Your task to perform on an android device: find which apps use the phone's location Image 0: 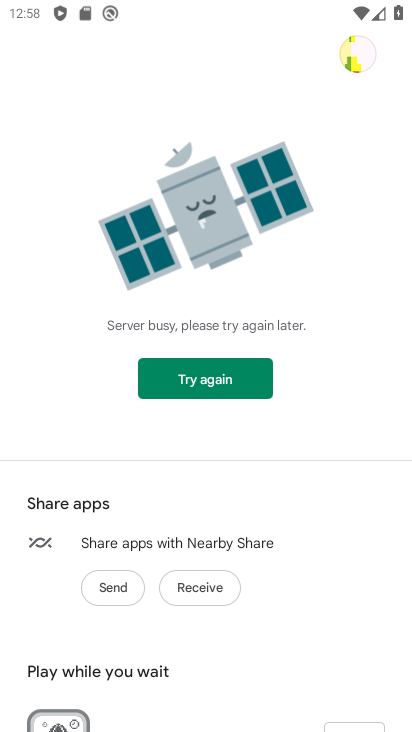
Step 0: press home button
Your task to perform on an android device: find which apps use the phone's location Image 1: 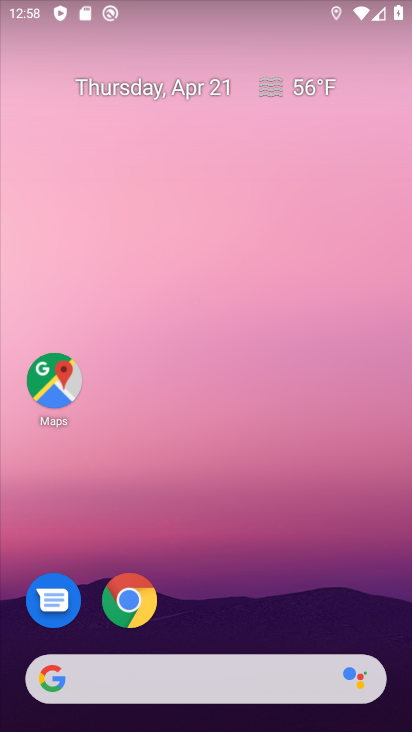
Step 1: drag from (353, 510) to (312, 134)
Your task to perform on an android device: find which apps use the phone's location Image 2: 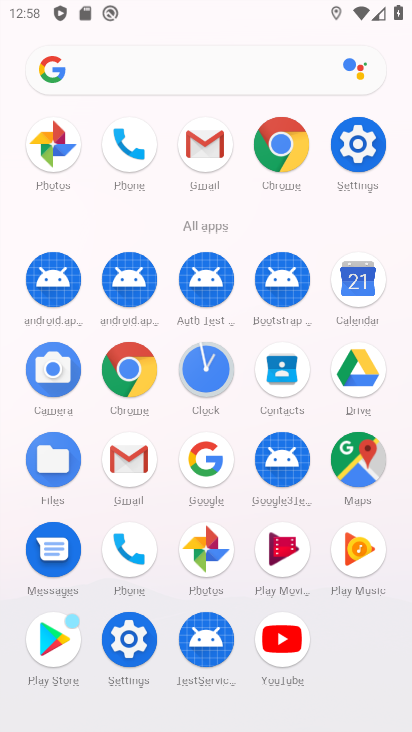
Step 2: click (359, 145)
Your task to perform on an android device: find which apps use the phone's location Image 3: 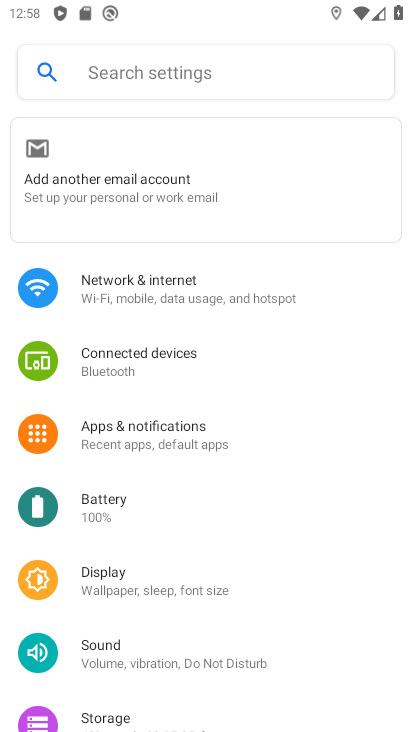
Step 3: drag from (332, 448) to (338, 363)
Your task to perform on an android device: find which apps use the phone's location Image 4: 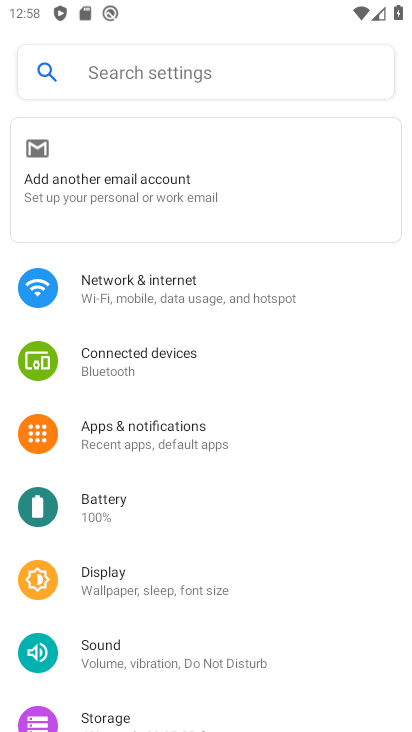
Step 4: drag from (333, 505) to (340, 337)
Your task to perform on an android device: find which apps use the phone's location Image 5: 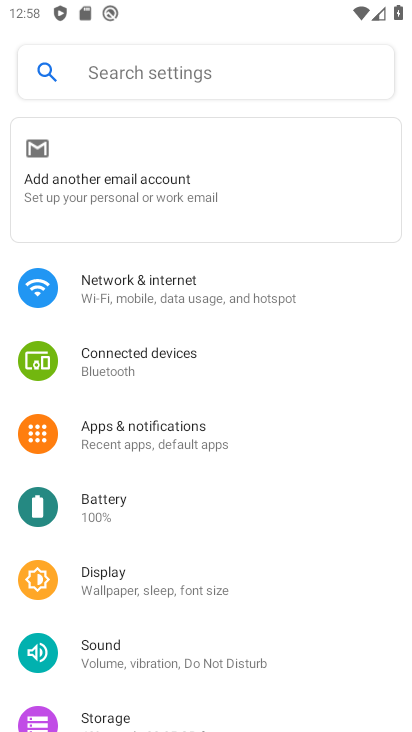
Step 5: click (344, 301)
Your task to perform on an android device: find which apps use the phone's location Image 6: 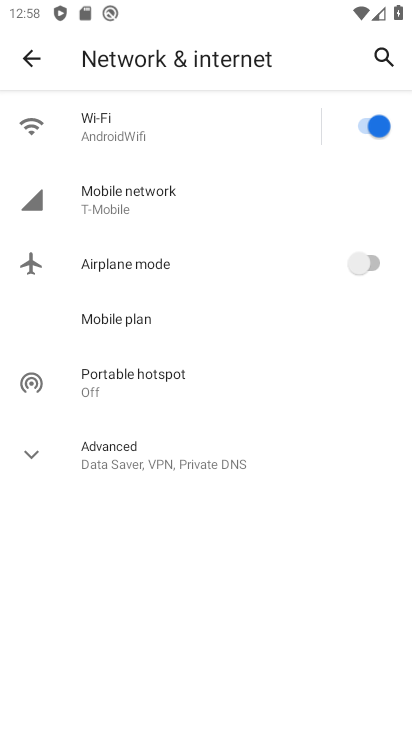
Step 6: drag from (354, 656) to (327, 360)
Your task to perform on an android device: find which apps use the phone's location Image 7: 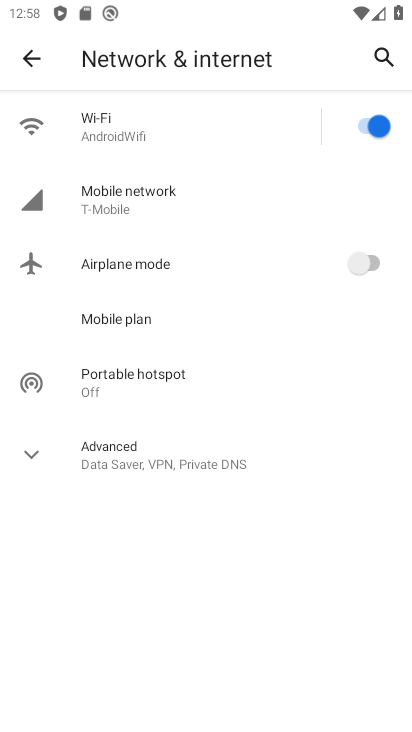
Step 7: click (19, 50)
Your task to perform on an android device: find which apps use the phone's location Image 8: 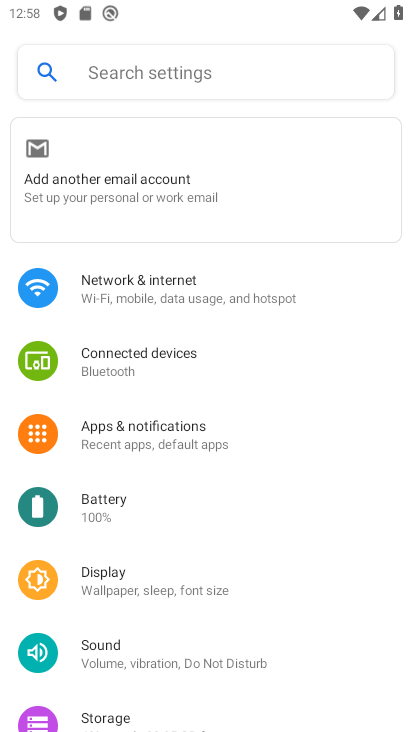
Step 8: drag from (330, 563) to (327, 327)
Your task to perform on an android device: find which apps use the phone's location Image 9: 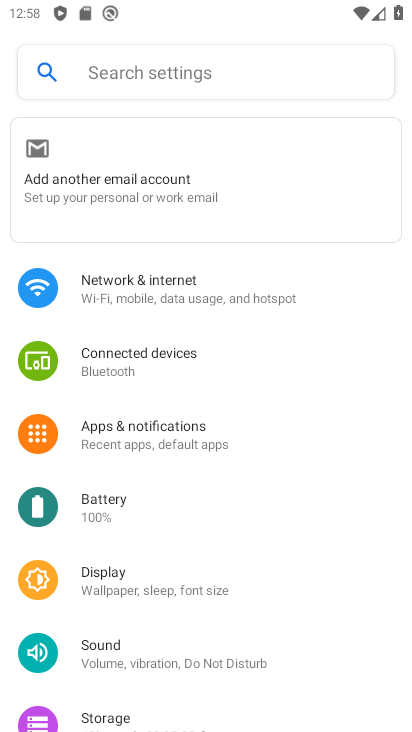
Step 9: drag from (359, 626) to (362, 385)
Your task to perform on an android device: find which apps use the phone's location Image 10: 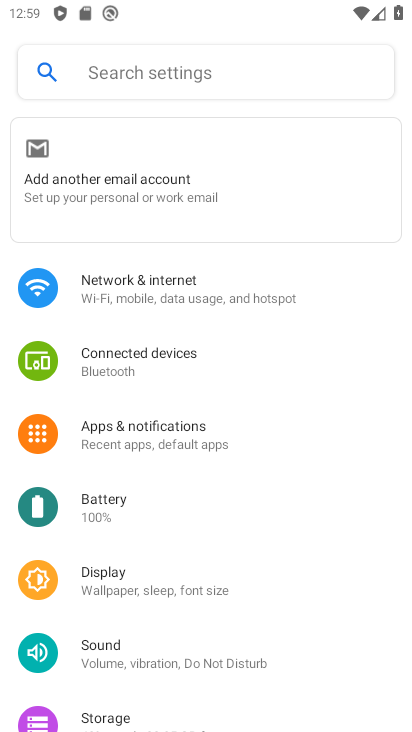
Step 10: drag from (343, 421) to (341, 306)
Your task to perform on an android device: find which apps use the phone's location Image 11: 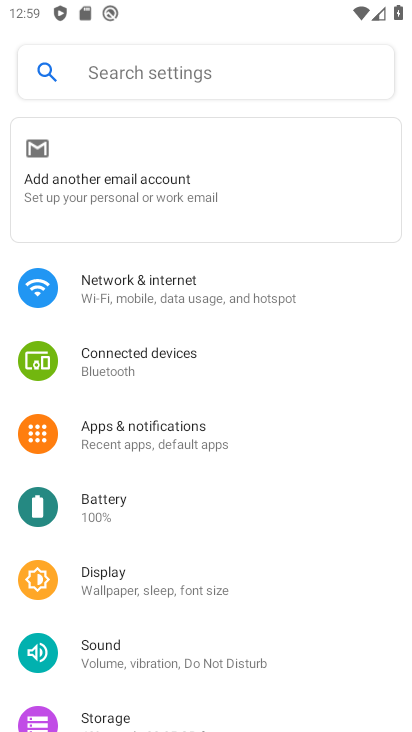
Step 11: drag from (374, 637) to (395, 213)
Your task to perform on an android device: find which apps use the phone's location Image 12: 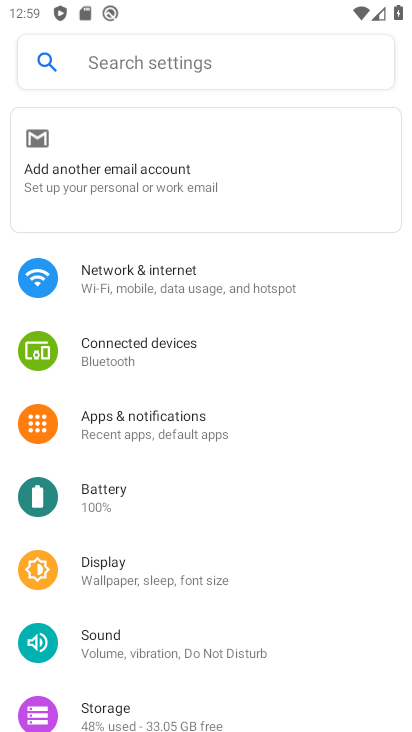
Step 12: drag from (364, 695) to (391, 209)
Your task to perform on an android device: find which apps use the phone's location Image 13: 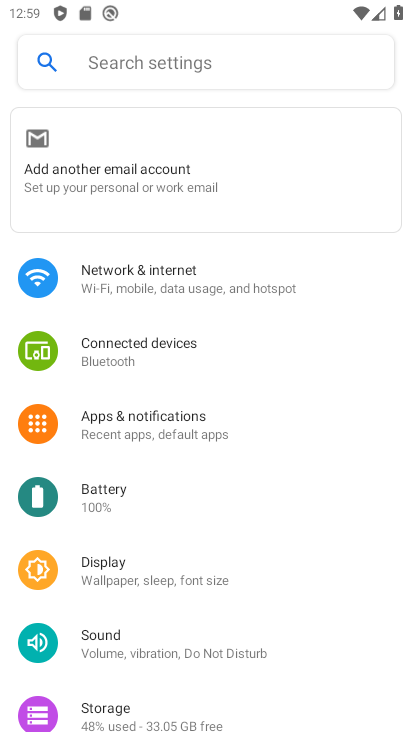
Step 13: drag from (376, 494) to (364, 242)
Your task to perform on an android device: find which apps use the phone's location Image 14: 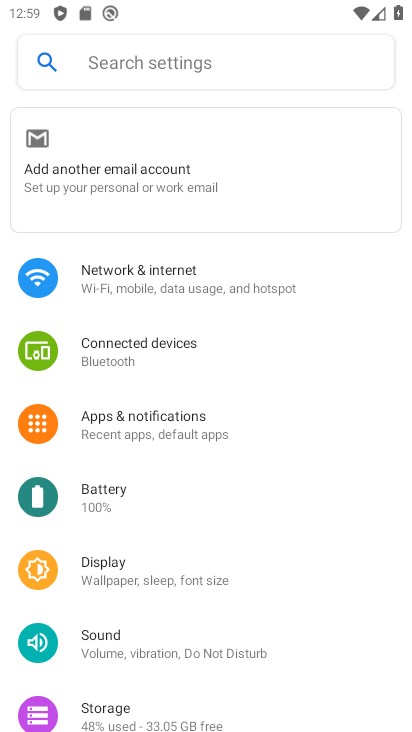
Step 14: drag from (363, 548) to (353, 259)
Your task to perform on an android device: find which apps use the phone's location Image 15: 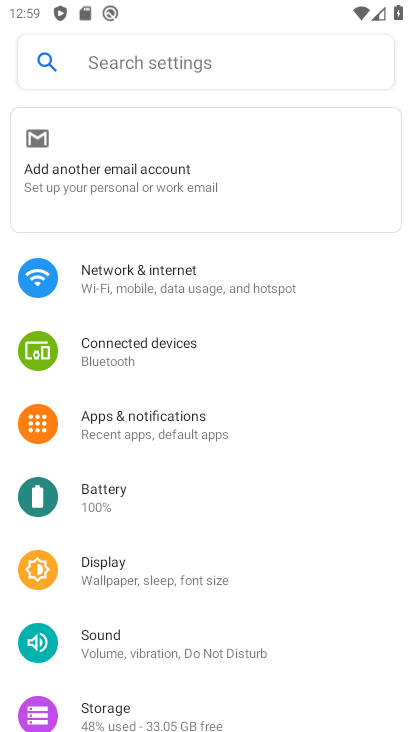
Step 15: drag from (370, 433) to (367, 236)
Your task to perform on an android device: find which apps use the phone's location Image 16: 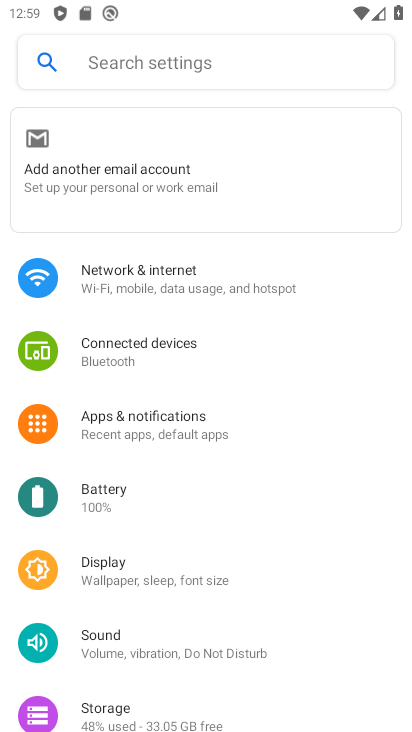
Step 16: drag from (375, 692) to (369, 275)
Your task to perform on an android device: find which apps use the phone's location Image 17: 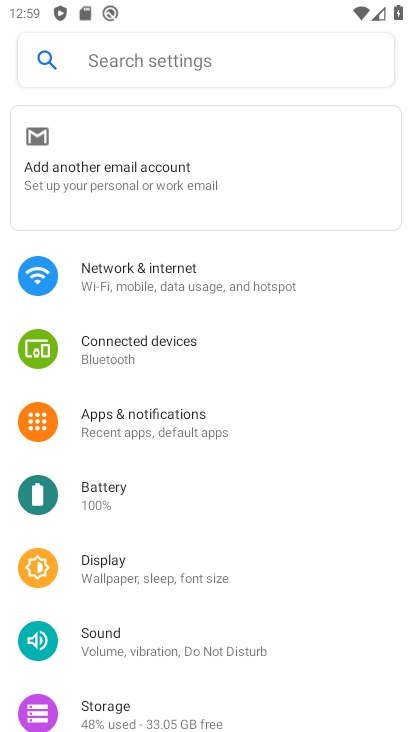
Step 17: drag from (355, 556) to (352, 274)
Your task to perform on an android device: find which apps use the phone's location Image 18: 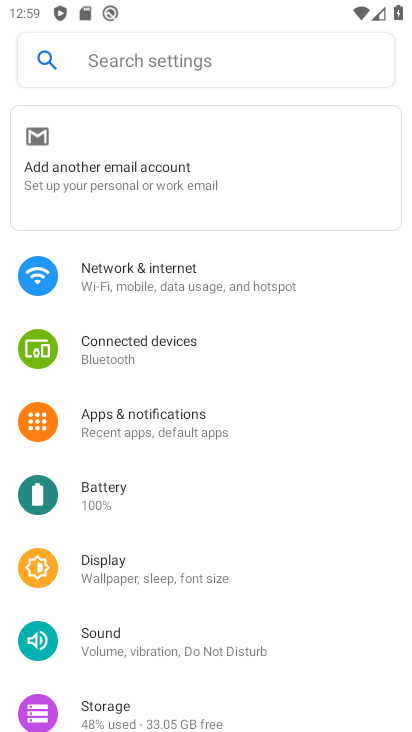
Step 18: drag from (340, 397) to (336, 217)
Your task to perform on an android device: find which apps use the phone's location Image 19: 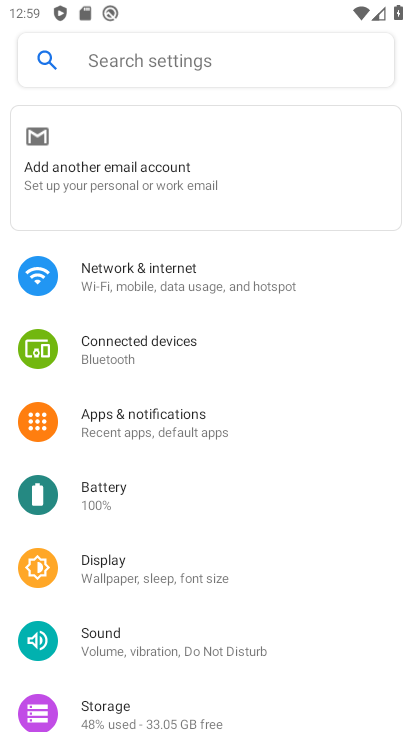
Step 19: drag from (361, 299) to (356, 232)
Your task to perform on an android device: find which apps use the phone's location Image 20: 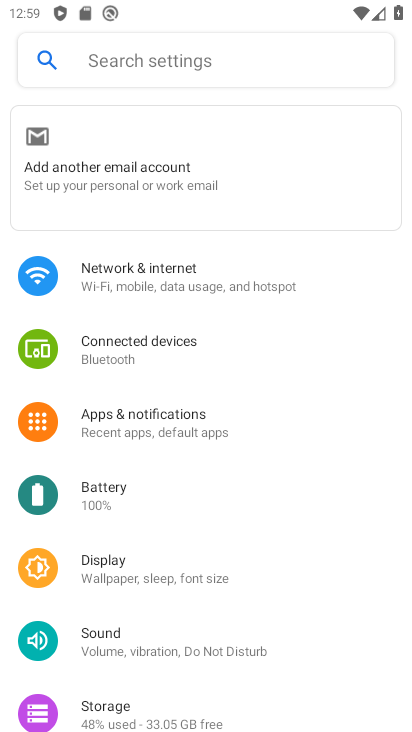
Step 20: drag from (360, 596) to (351, 327)
Your task to perform on an android device: find which apps use the phone's location Image 21: 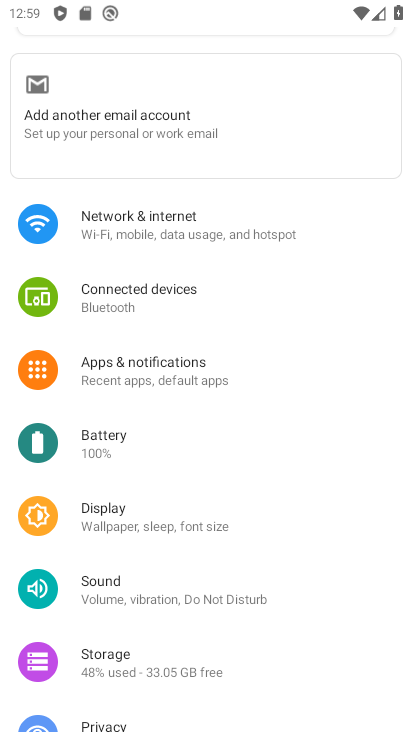
Step 21: drag from (375, 598) to (341, 185)
Your task to perform on an android device: find which apps use the phone's location Image 22: 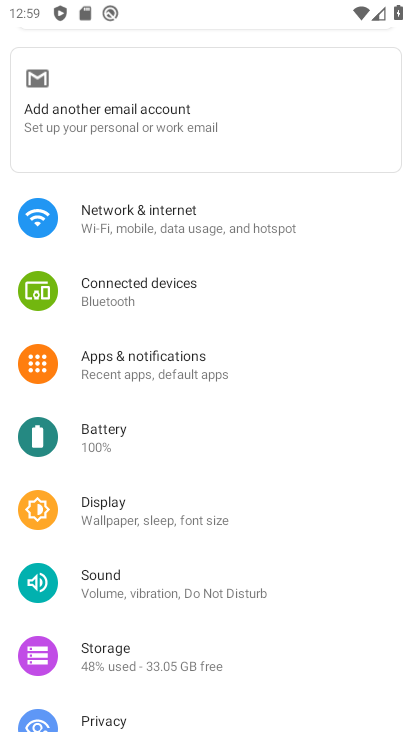
Step 22: drag from (342, 682) to (342, 275)
Your task to perform on an android device: find which apps use the phone's location Image 23: 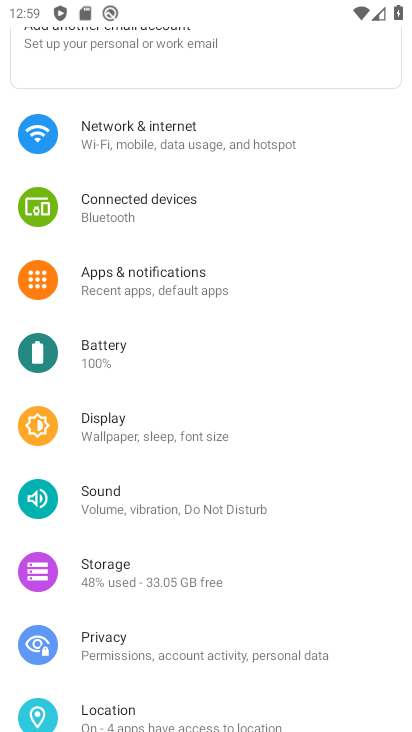
Step 23: click (103, 709)
Your task to perform on an android device: find which apps use the phone's location Image 24: 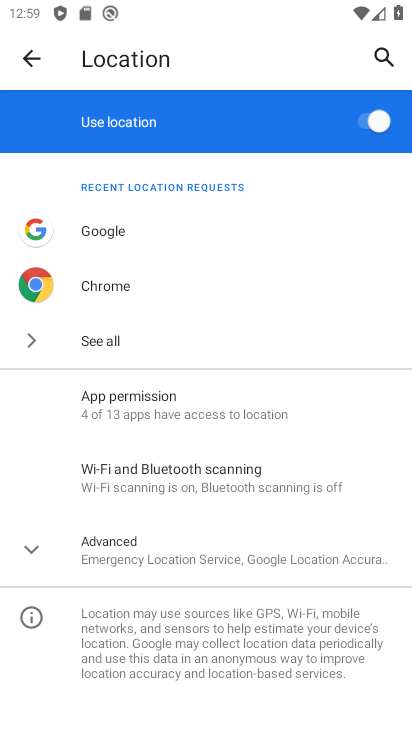
Step 24: click (98, 397)
Your task to perform on an android device: find which apps use the phone's location Image 25: 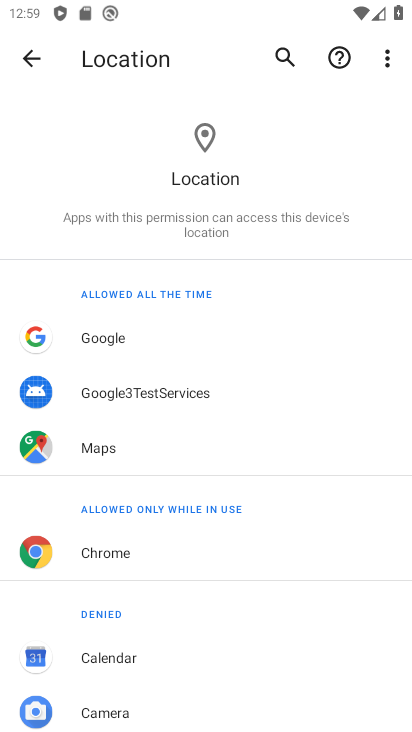
Step 25: task complete